Your task to perform on an android device: Empty the shopping cart on amazon.com. Search for "panasonic triple a" on amazon.com, select the first entry, add it to the cart, then select checkout. Image 0: 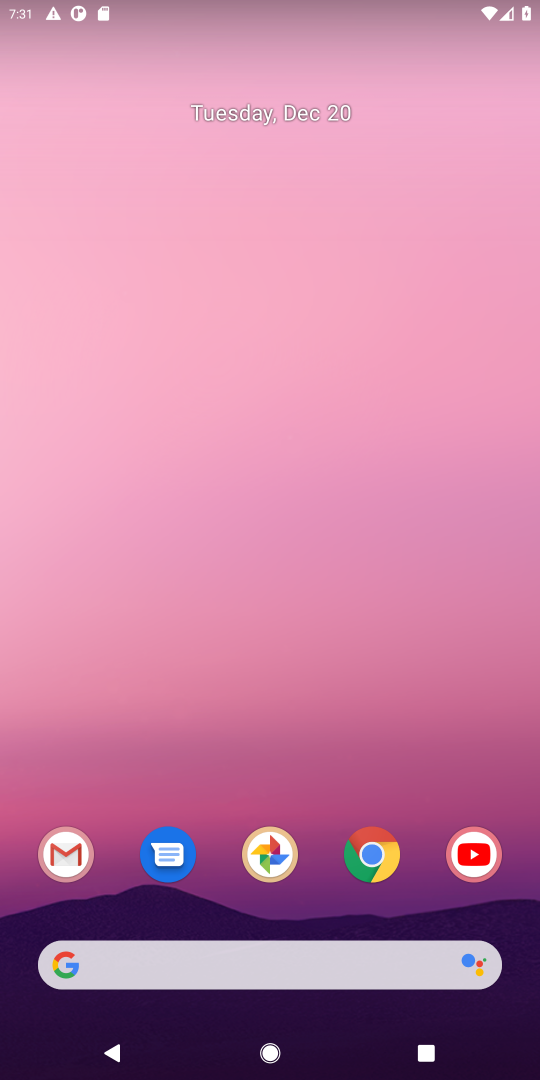
Step 0: click (370, 859)
Your task to perform on an android device: Empty the shopping cart on amazon.com. Search for "panasonic triple a" on amazon.com, select the first entry, add it to the cart, then select checkout. Image 1: 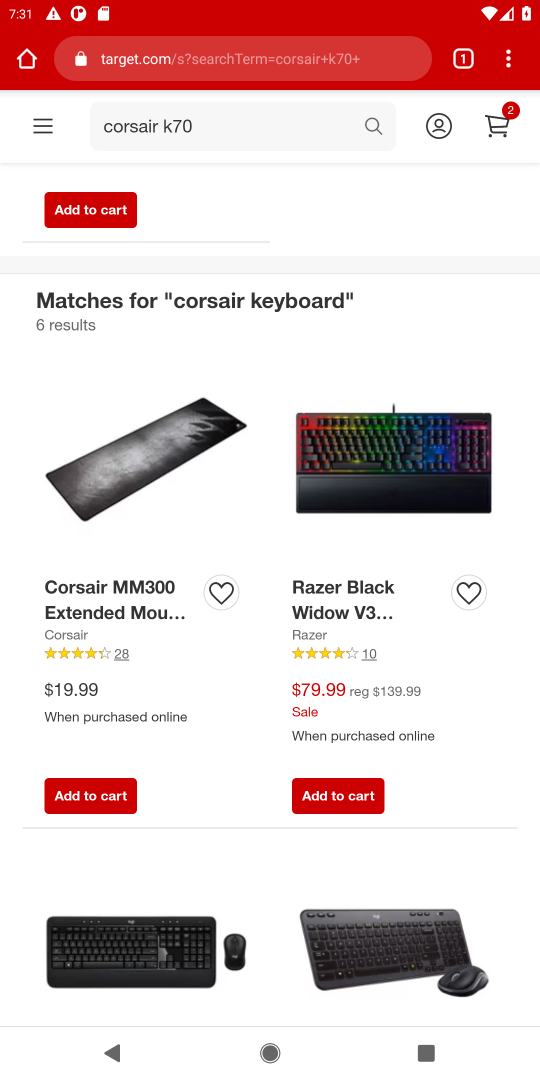
Step 1: click (148, 62)
Your task to perform on an android device: Empty the shopping cart on amazon.com. Search for "panasonic triple a" on amazon.com, select the first entry, add it to the cart, then select checkout. Image 2: 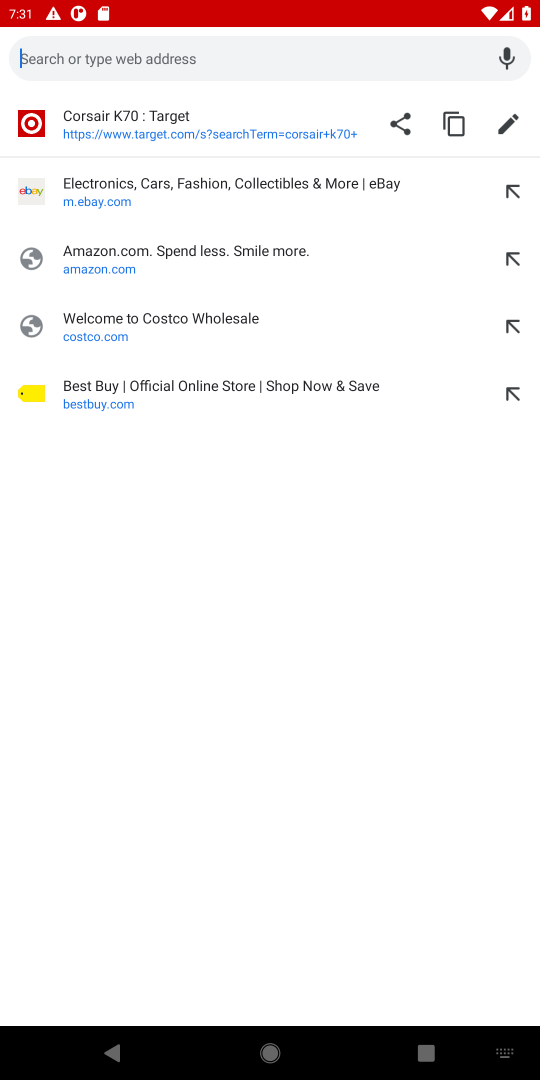
Step 2: click (71, 255)
Your task to perform on an android device: Empty the shopping cart on amazon.com. Search for "panasonic triple a" on amazon.com, select the first entry, add it to the cart, then select checkout. Image 3: 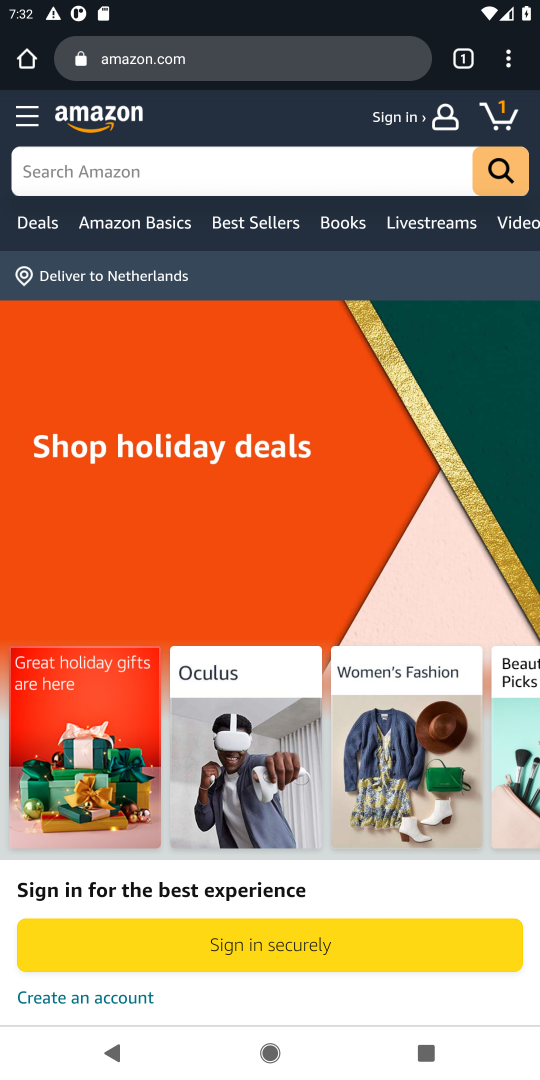
Step 3: click (497, 115)
Your task to perform on an android device: Empty the shopping cart on amazon.com. Search for "panasonic triple a" on amazon.com, select the first entry, add it to the cart, then select checkout. Image 4: 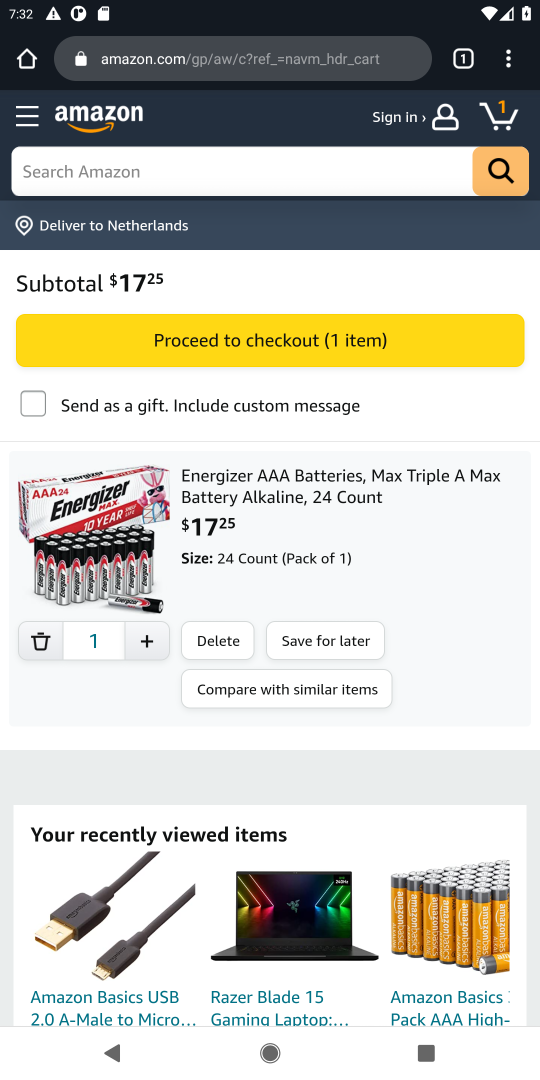
Step 4: click (216, 642)
Your task to perform on an android device: Empty the shopping cart on amazon.com. Search for "panasonic triple a" on amazon.com, select the first entry, add it to the cart, then select checkout. Image 5: 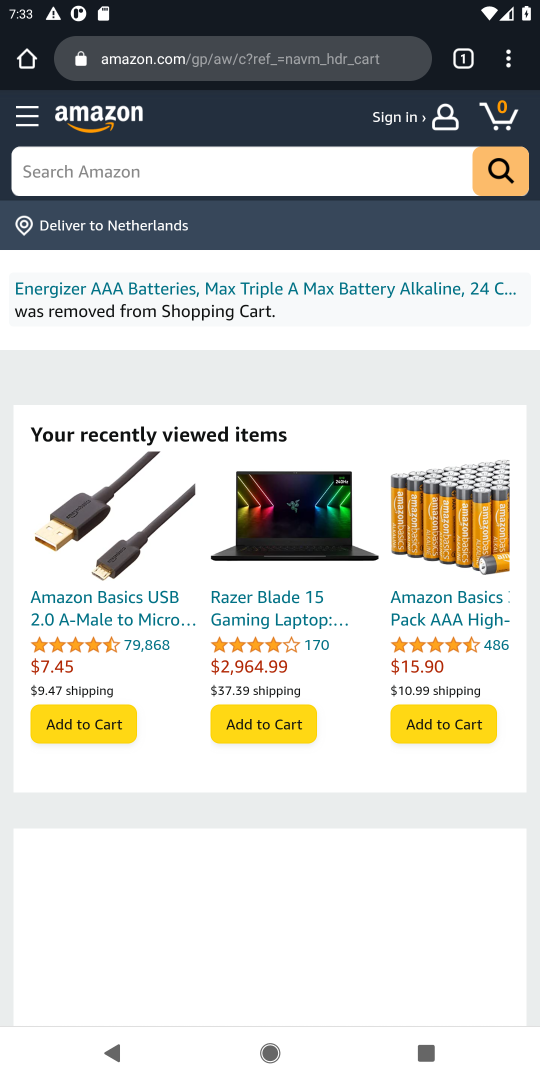
Step 5: click (74, 169)
Your task to perform on an android device: Empty the shopping cart on amazon.com. Search for "panasonic triple a" on amazon.com, select the first entry, add it to the cart, then select checkout. Image 6: 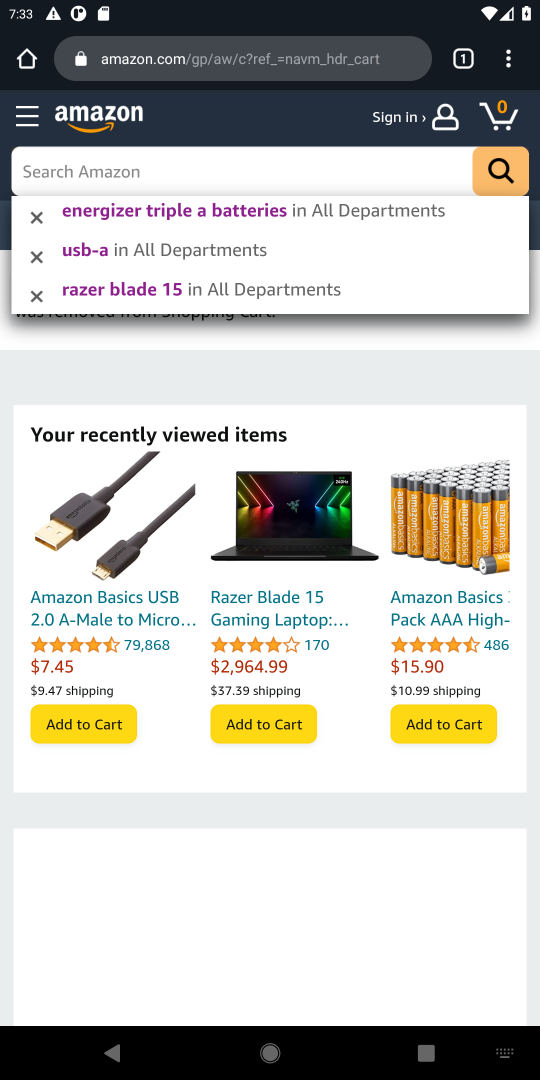
Step 6: type "panasonic triple a"
Your task to perform on an android device: Empty the shopping cart on amazon.com. Search for "panasonic triple a" on amazon.com, select the first entry, add it to the cart, then select checkout. Image 7: 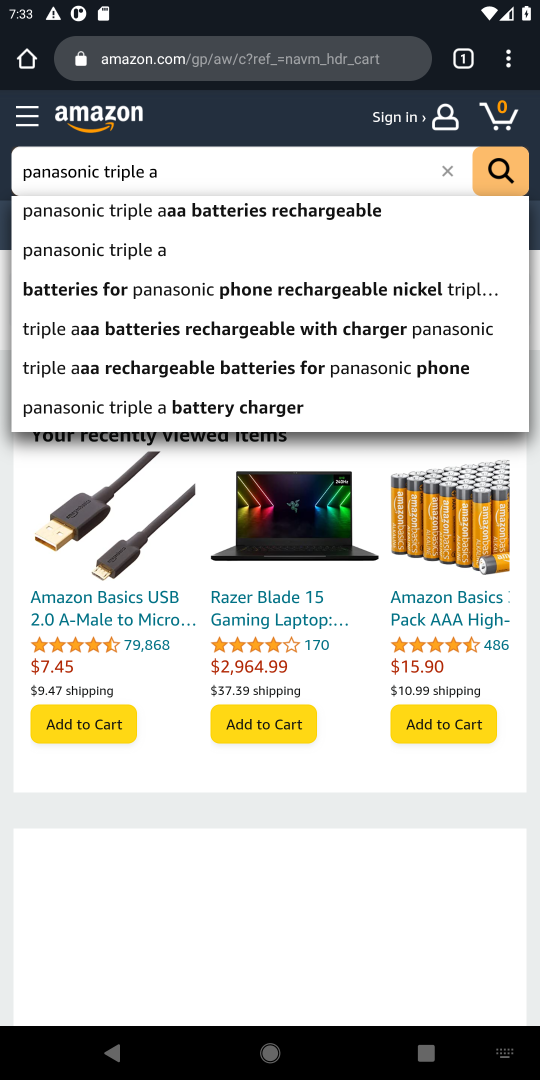
Step 7: click (107, 251)
Your task to perform on an android device: Empty the shopping cart on amazon.com. Search for "panasonic triple a" on amazon.com, select the first entry, add it to the cart, then select checkout. Image 8: 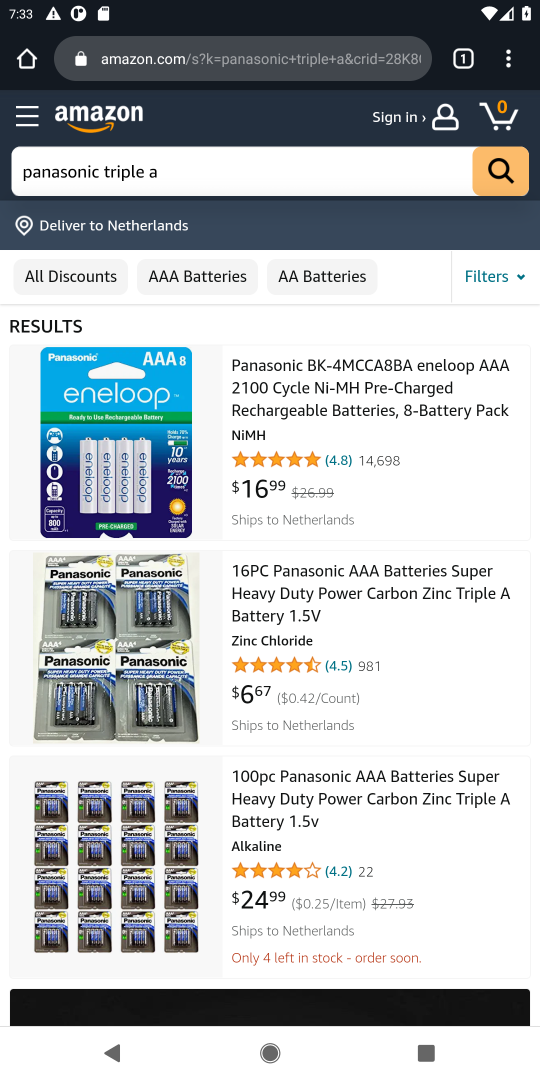
Step 8: click (280, 407)
Your task to perform on an android device: Empty the shopping cart on amazon.com. Search for "panasonic triple a" on amazon.com, select the first entry, add it to the cart, then select checkout. Image 9: 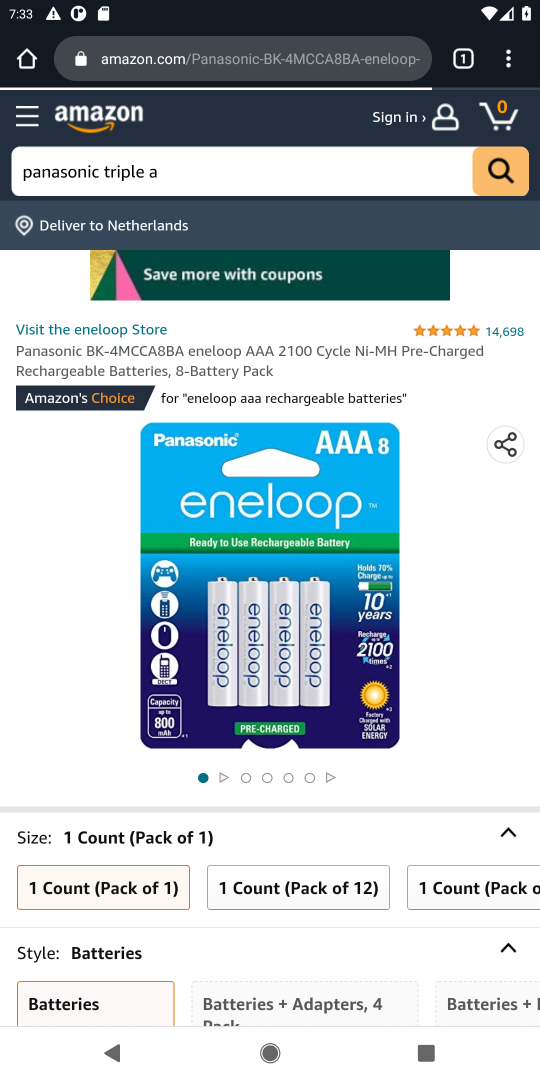
Step 9: drag from (298, 819) to (280, 352)
Your task to perform on an android device: Empty the shopping cart on amazon.com. Search for "panasonic triple a" on amazon.com, select the first entry, add it to the cart, then select checkout. Image 10: 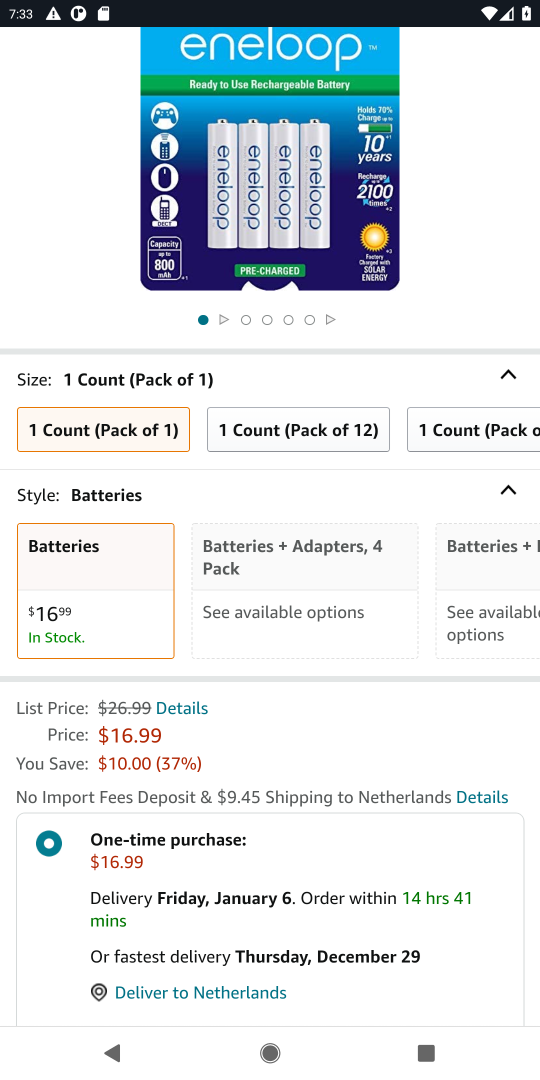
Step 10: drag from (202, 668) to (256, 354)
Your task to perform on an android device: Empty the shopping cart on amazon.com. Search for "panasonic triple a" on amazon.com, select the first entry, add it to the cart, then select checkout. Image 11: 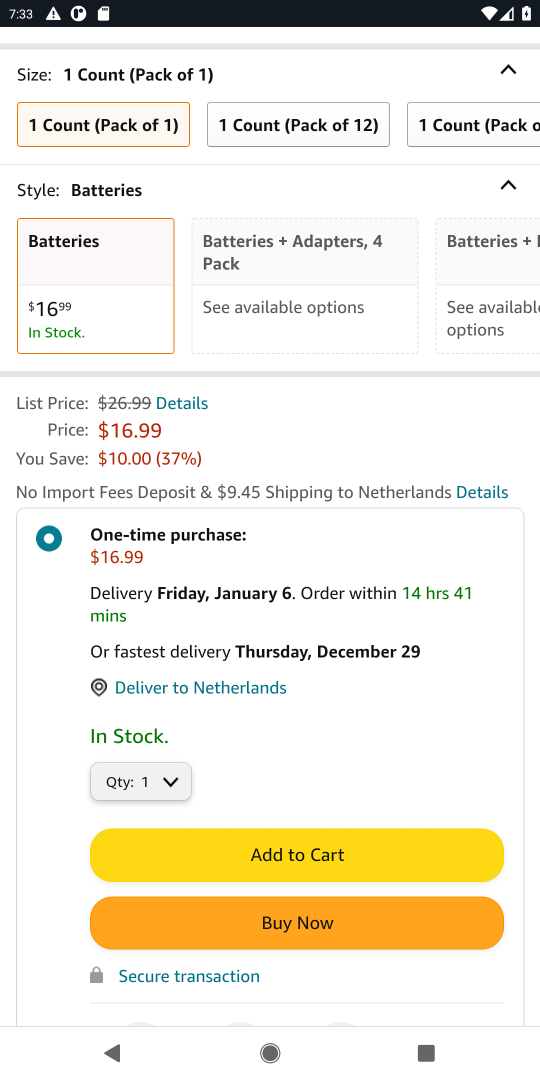
Step 11: click (254, 853)
Your task to perform on an android device: Empty the shopping cart on amazon.com. Search for "panasonic triple a" on amazon.com, select the first entry, add it to the cart, then select checkout. Image 12: 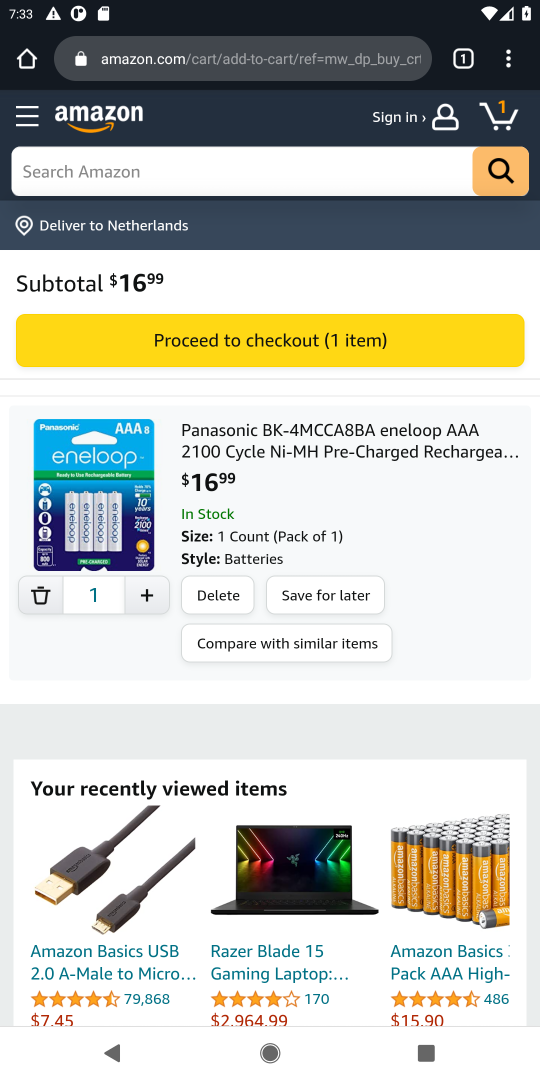
Step 12: click (223, 340)
Your task to perform on an android device: Empty the shopping cart on amazon.com. Search for "panasonic triple a" on amazon.com, select the first entry, add it to the cart, then select checkout. Image 13: 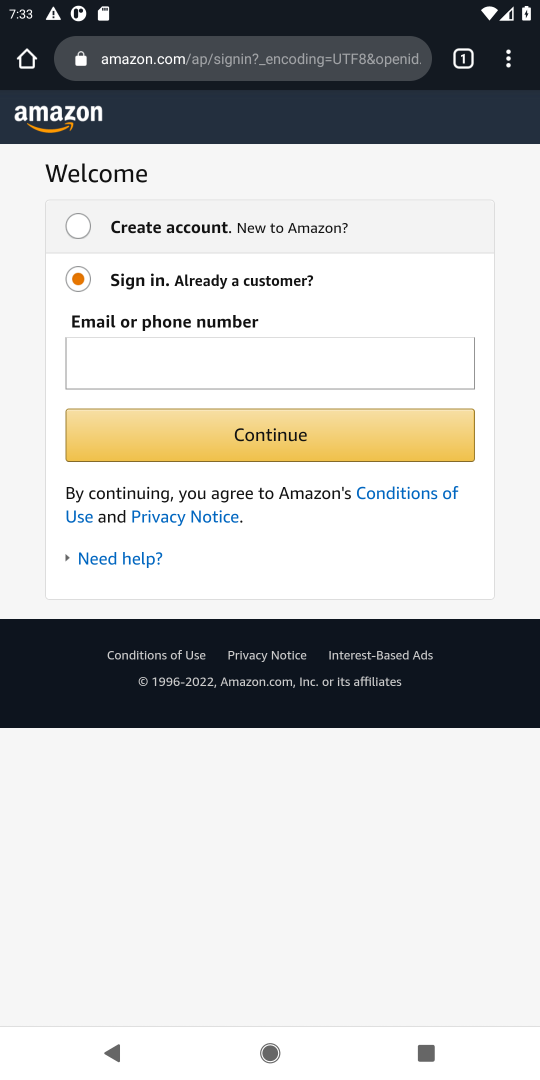
Step 13: task complete